Your task to perform on an android device: Open network settings Image 0: 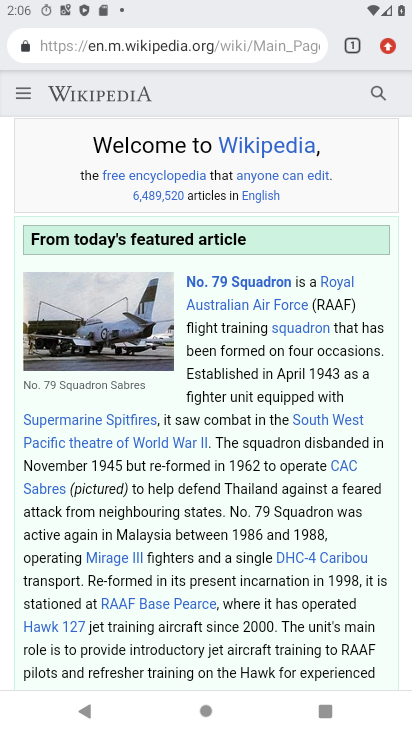
Step 0: press home button
Your task to perform on an android device: Open network settings Image 1: 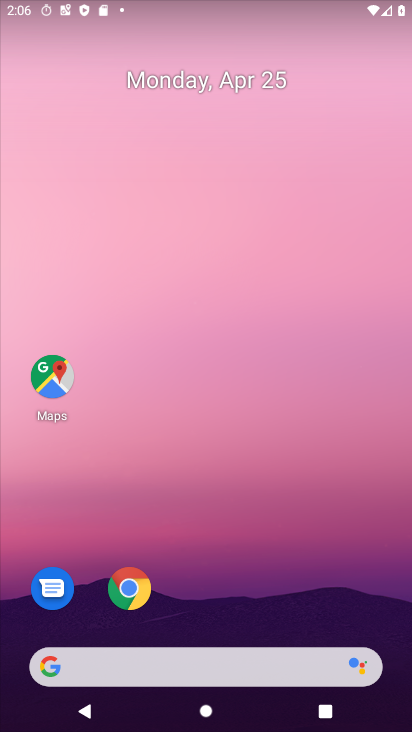
Step 1: drag from (203, 594) to (183, 162)
Your task to perform on an android device: Open network settings Image 2: 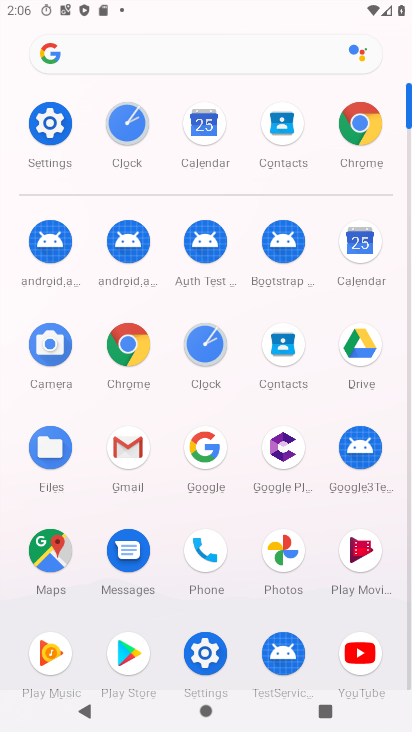
Step 2: click (50, 134)
Your task to perform on an android device: Open network settings Image 3: 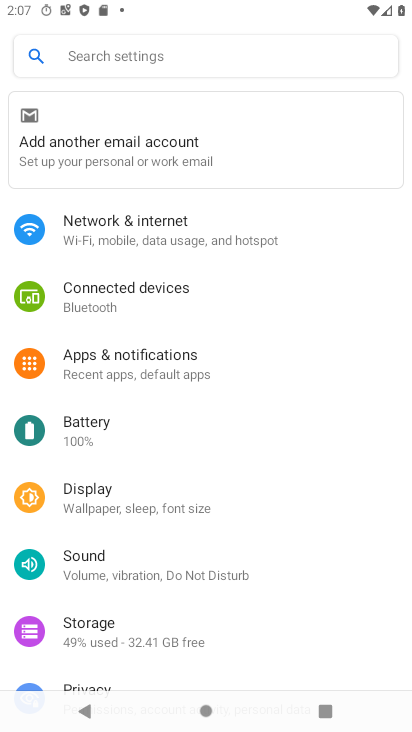
Step 3: click (150, 247)
Your task to perform on an android device: Open network settings Image 4: 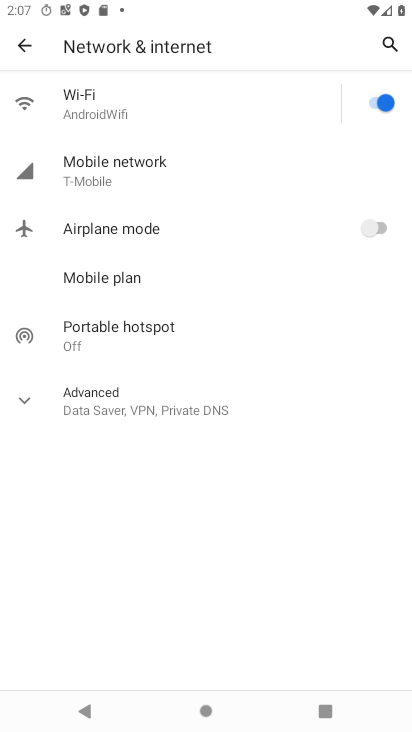
Step 4: task complete